Your task to perform on an android device: What's on my calendar tomorrow? Image 0: 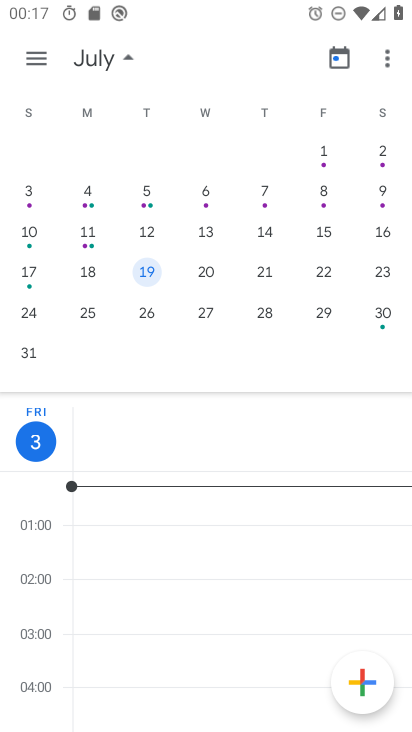
Step 0: press home button
Your task to perform on an android device: What's on my calendar tomorrow? Image 1: 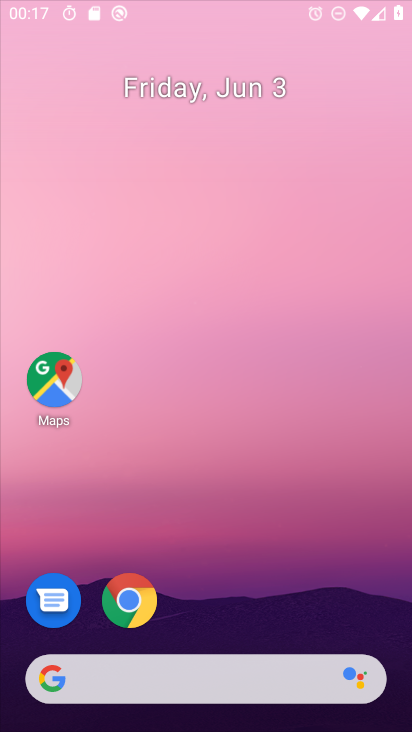
Step 1: drag from (236, 279) to (250, 44)
Your task to perform on an android device: What's on my calendar tomorrow? Image 2: 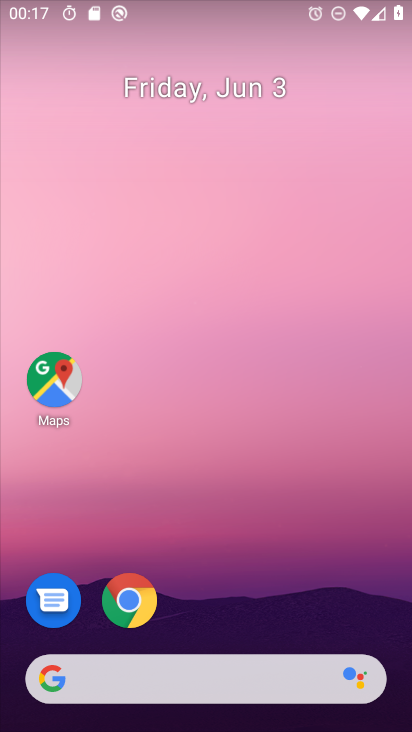
Step 2: drag from (215, 603) to (191, 0)
Your task to perform on an android device: What's on my calendar tomorrow? Image 3: 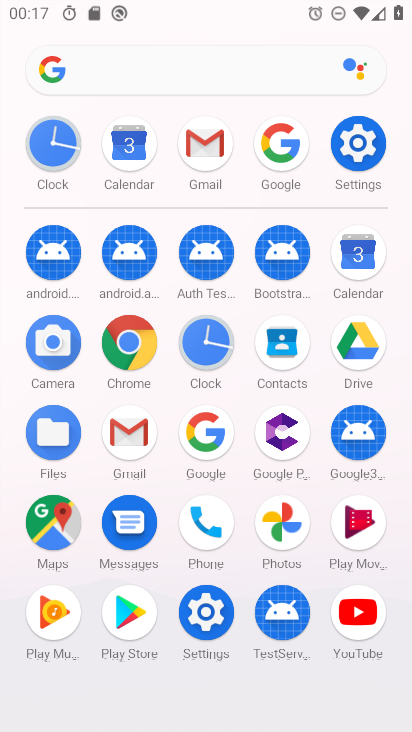
Step 3: click (362, 259)
Your task to perform on an android device: What's on my calendar tomorrow? Image 4: 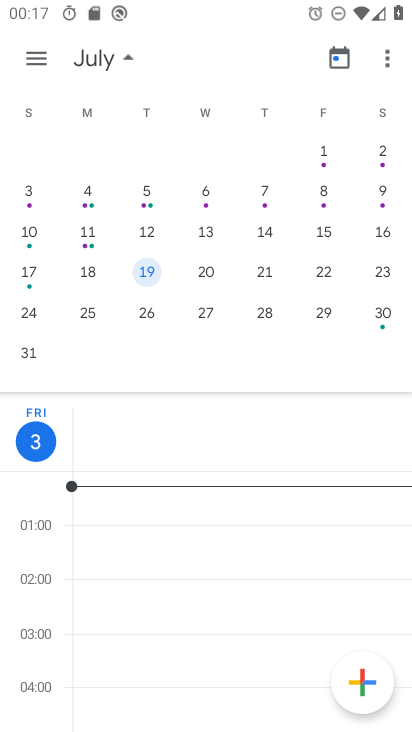
Step 4: drag from (33, 351) to (410, 337)
Your task to perform on an android device: What's on my calendar tomorrow? Image 5: 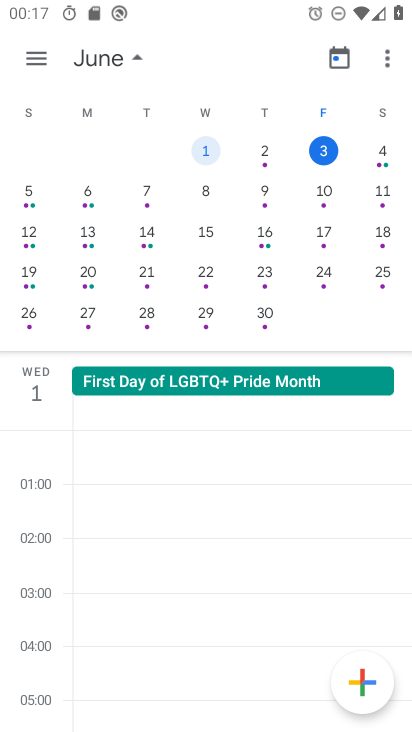
Step 5: click (381, 150)
Your task to perform on an android device: What's on my calendar tomorrow? Image 6: 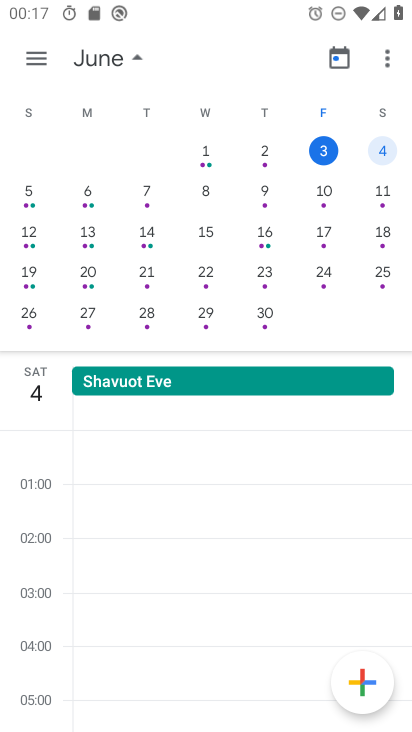
Step 6: task complete